Your task to perform on an android device: check android version Image 0: 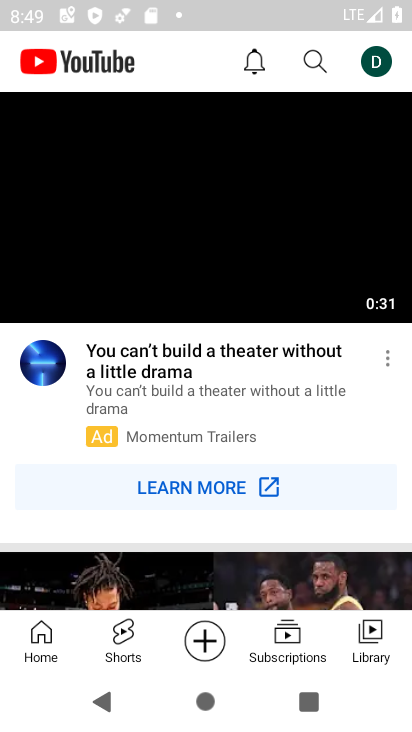
Step 0: press home button
Your task to perform on an android device: check android version Image 1: 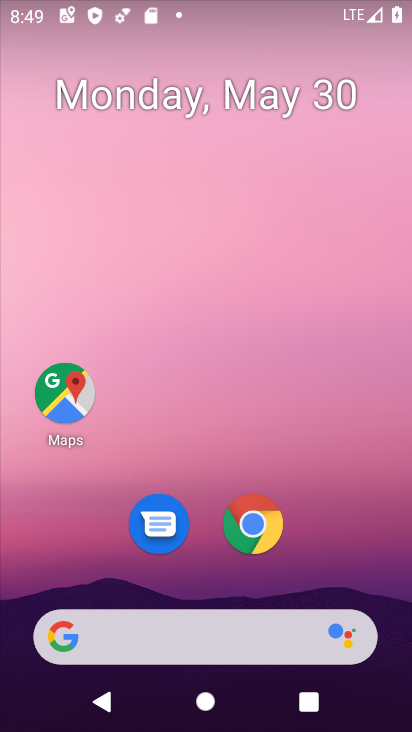
Step 1: drag from (349, 549) to (301, 0)
Your task to perform on an android device: check android version Image 2: 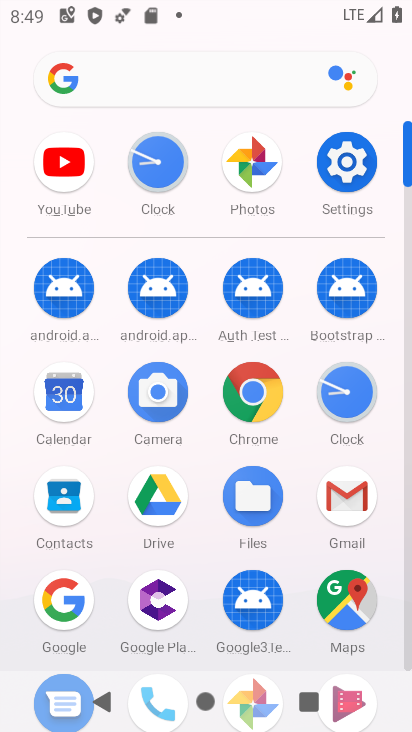
Step 2: click (342, 143)
Your task to perform on an android device: check android version Image 3: 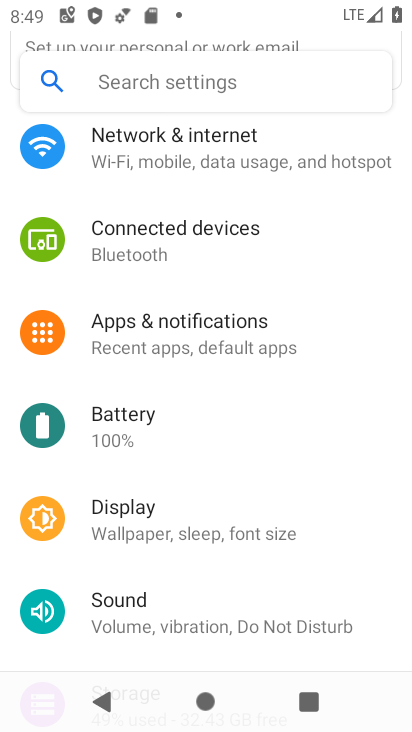
Step 3: drag from (217, 495) to (241, 2)
Your task to perform on an android device: check android version Image 4: 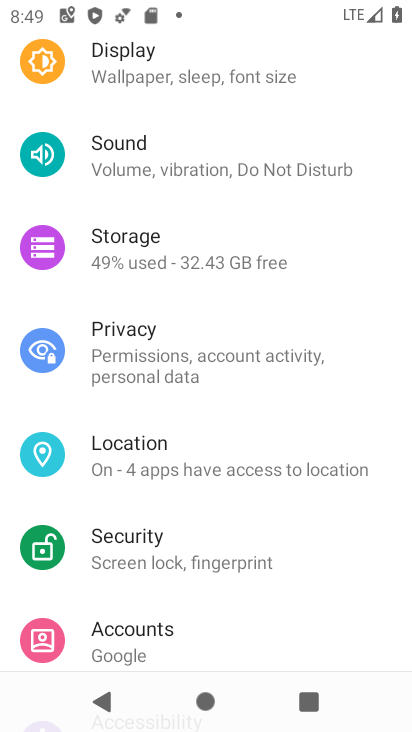
Step 4: drag from (230, 319) to (250, 0)
Your task to perform on an android device: check android version Image 5: 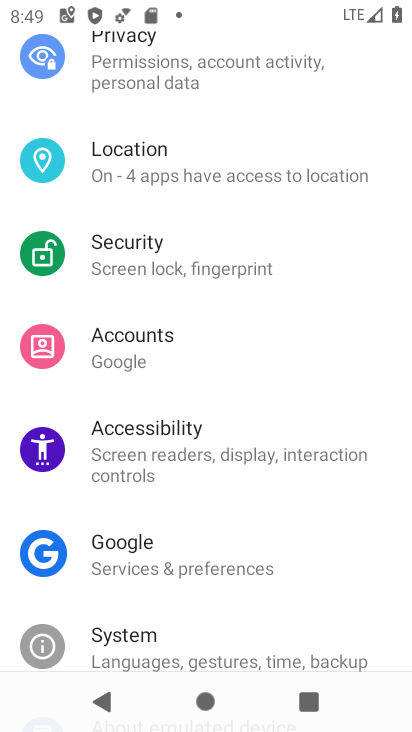
Step 5: drag from (231, 504) to (246, 177)
Your task to perform on an android device: check android version Image 6: 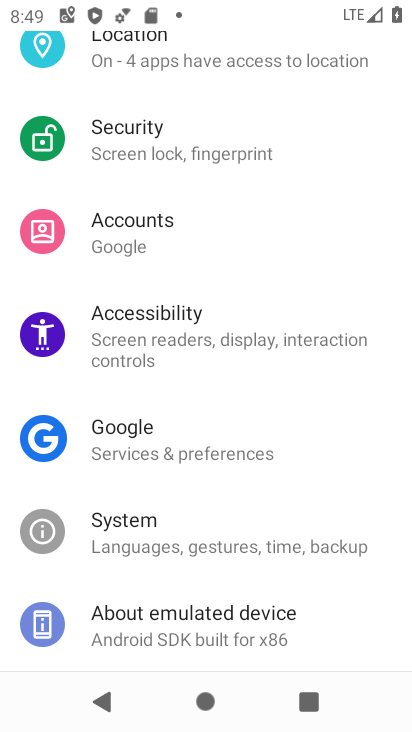
Step 6: click (221, 621)
Your task to perform on an android device: check android version Image 7: 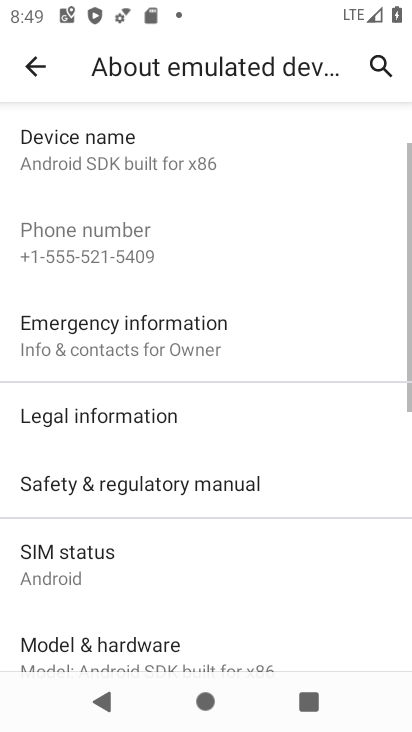
Step 7: drag from (223, 611) to (307, 102)
Your task to perform on an android device: check android version Image 8: 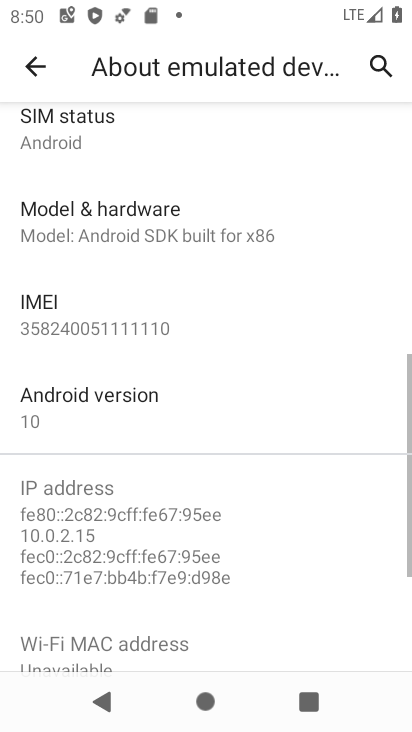
Step 8: click (171, 412)
Your task to perform on an android device: check android version Image 9: 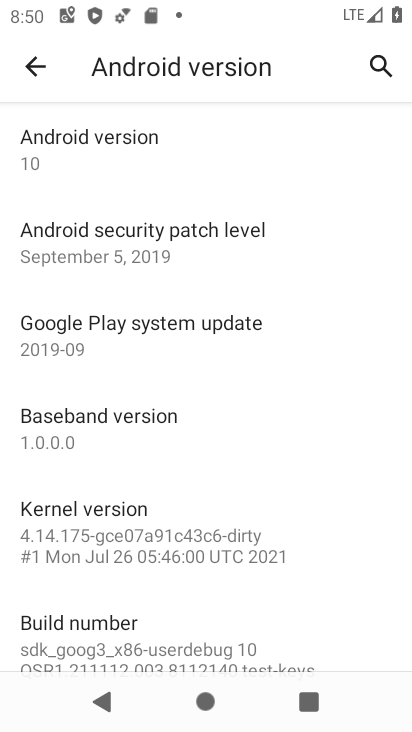
Step 9: task complete